Your task to perform on an android device: set an alarm Image 0: 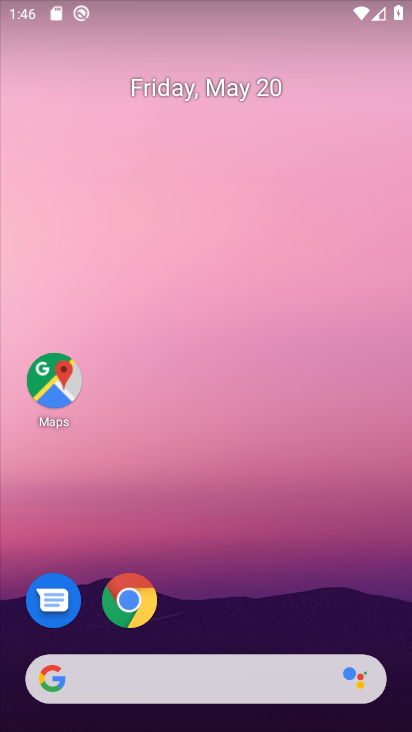
Step 0: drag from (246, 628) to (272, 34)
Your task to perform on an android device: set an alarm Image 1: 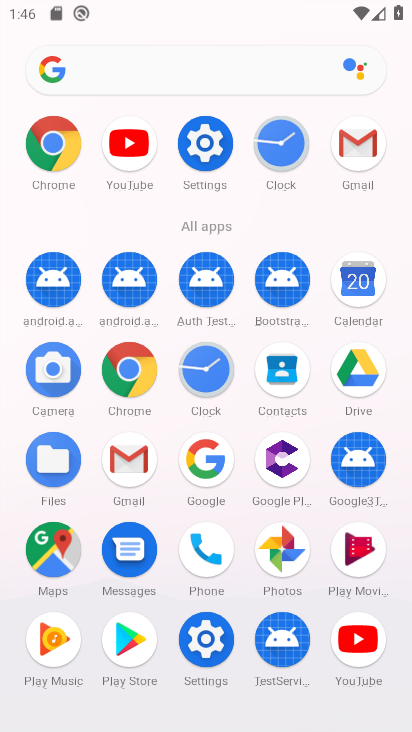
Step 1: click (202, 382)
Your task to perform on an android device: set an alarm Image 2: 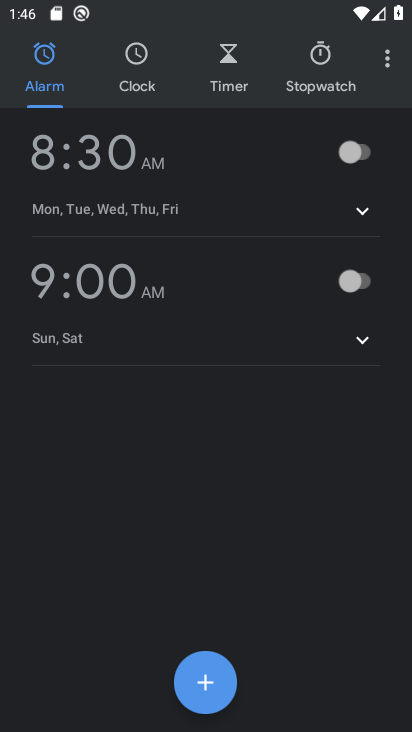
Step 2: click (364, 152)
Your task to perform on an android device: set an alarm Image 3: 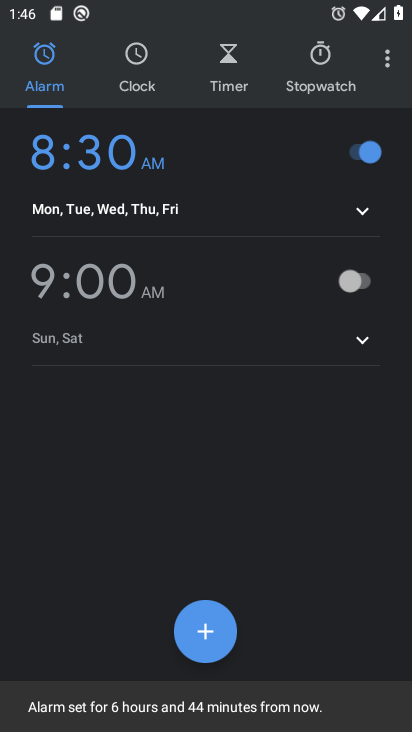
Step 3: click (358, 215)
Your task to perform on an android device: set an alarm Image 4: 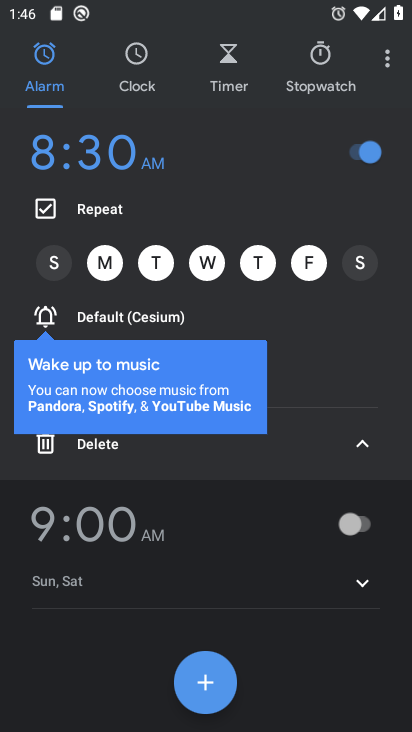
Step 4: click (156, 268)
Your task to perform on an android device: set an alarm Image 5: 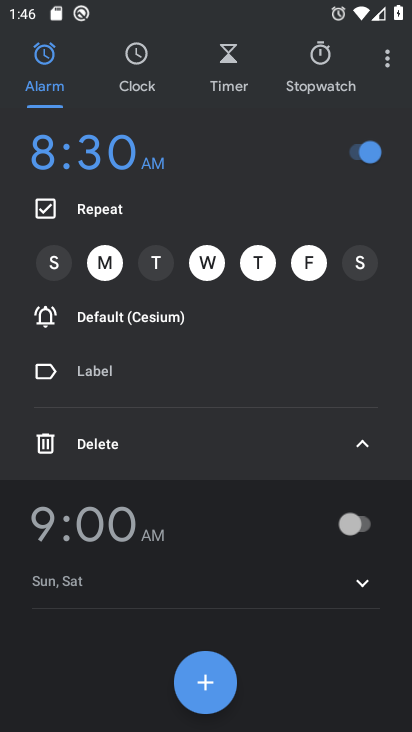
Step 5: click (209, 270)
Your task to perform on an android device: set an alarm Image 6: 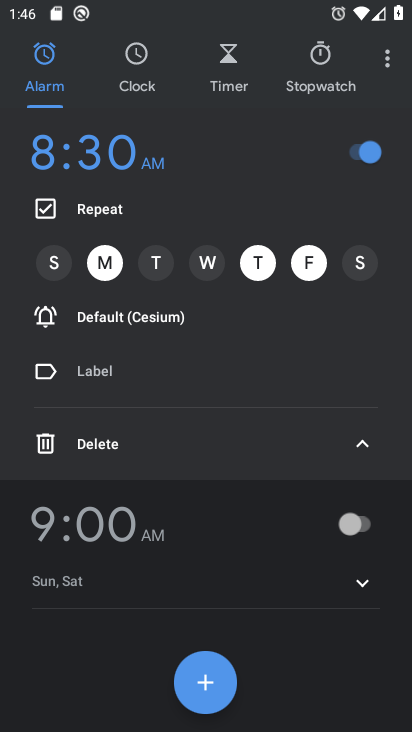
Step 6: task complete